Your task to perform on an android device: toggle translation in the chrome app Image 0: 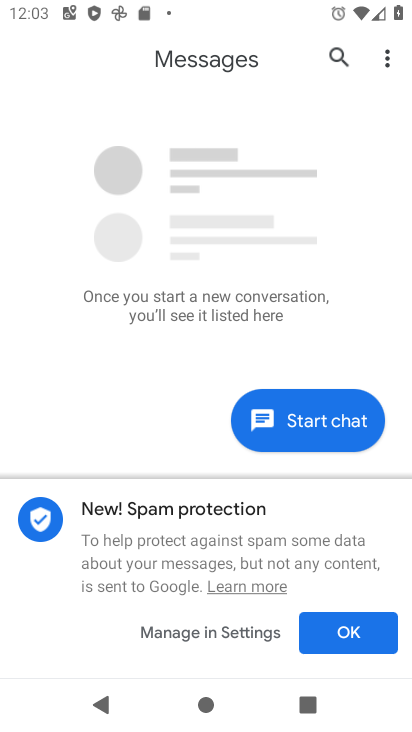
Step 0: press home button
Your task to perform on an android device: toggle translation in the chrome app Image 1: 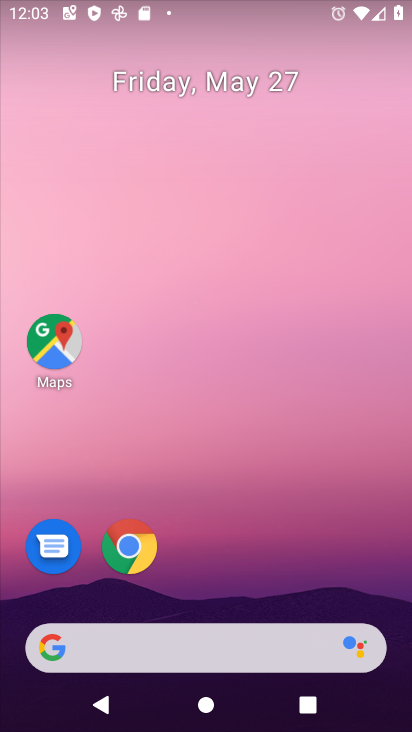
Step 1: click (136, 545)
Your task to perform on an android device: toggle translation in the chrome app Image 2: 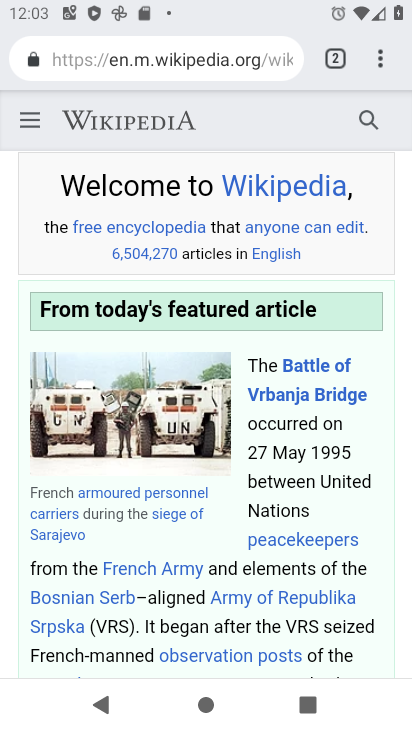
Step 2: click (375, 65)
Your task to perform on an android device: toggle translation in the chrome app Image 3: 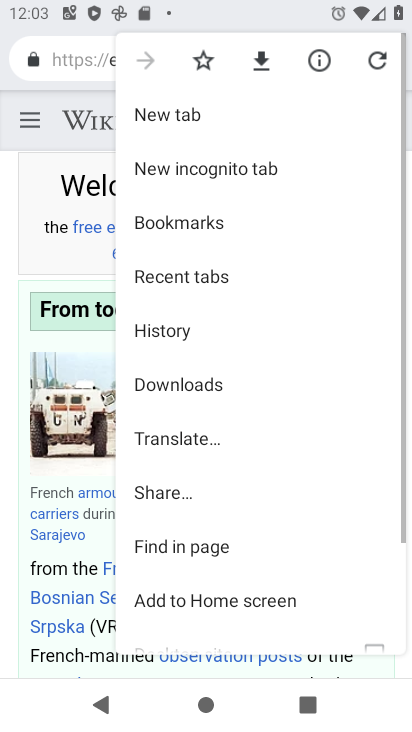
Step 3: drag from (277, 543) to (267, 121)
Your task to perform on an android device: toggle translation in the chrome app Image 4: 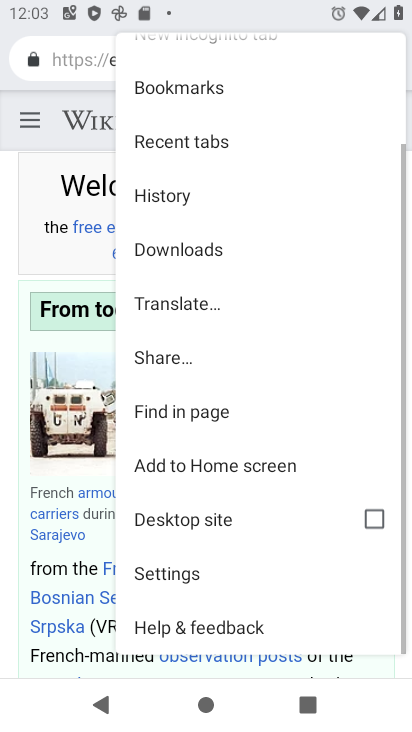
Step 4: click (165, 578)
Your task to perform on an android device: toggle translation in the chrome app Image 5: 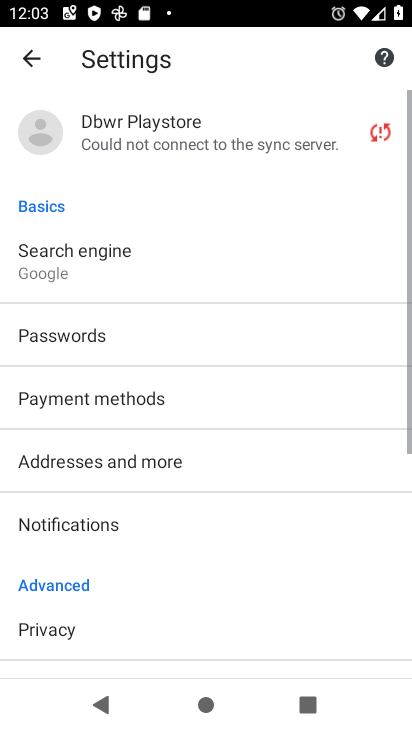
Step 5: drag from (184, 608) to (208, 162)
Your task to perform on an android device: toggle translation in the chrome app Image 6: 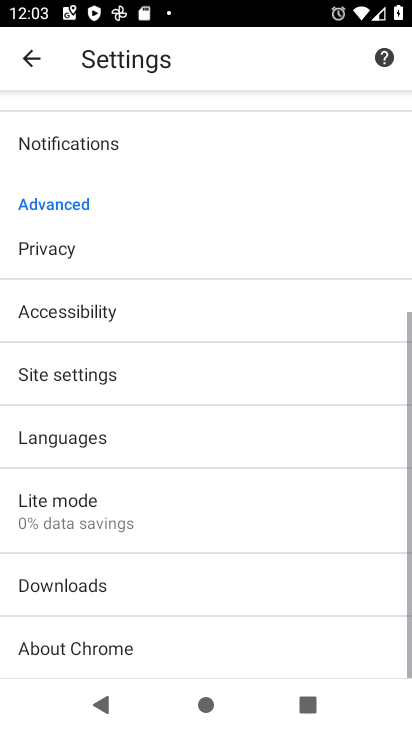
Step 6: click (64, 447)
Your task to perform on an android device: toggle translation in the chrome app Image 7: 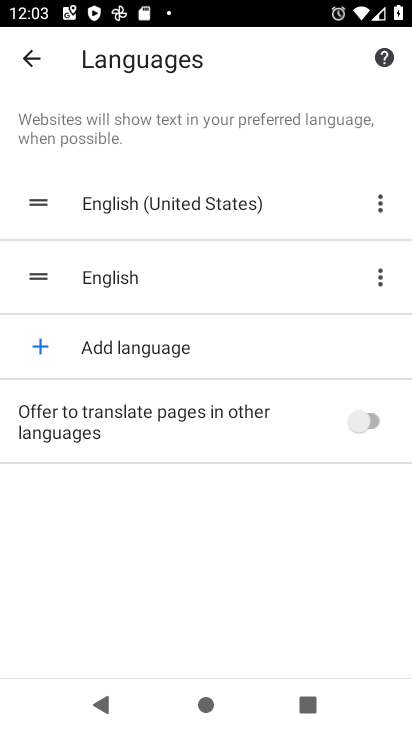
Step 7: click (365, 423)
Your task to perform on an android device: toggle translation in the chrome app Image 8: 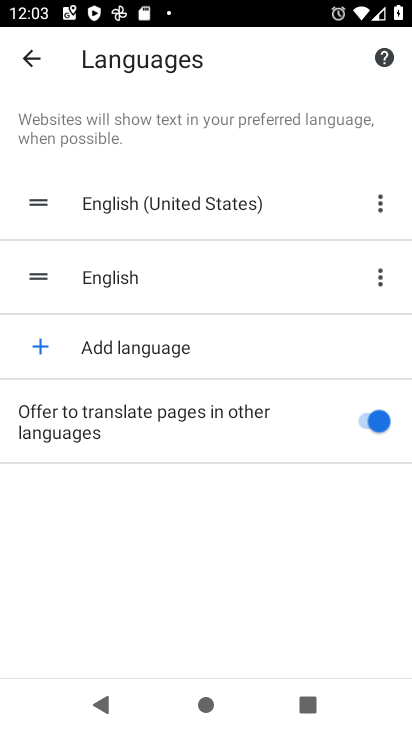
Step 8: task complete